Your task to perform on an android device: empty trash in google photos Image 0: 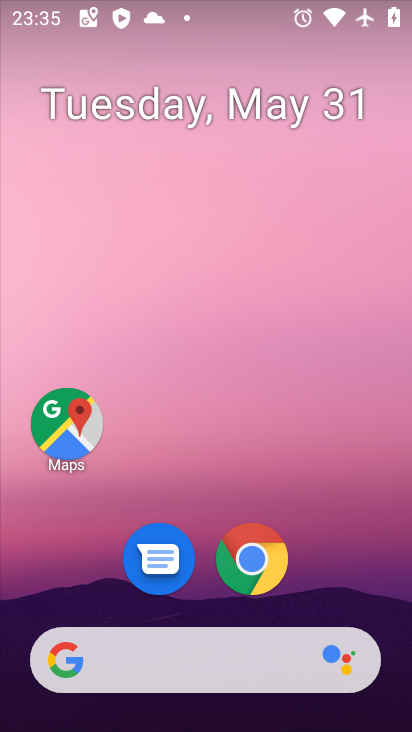
Step 0: drag from (329, 574) to (336, 71)
Your task to perform on an android device: empty trash in google photos Image 1: 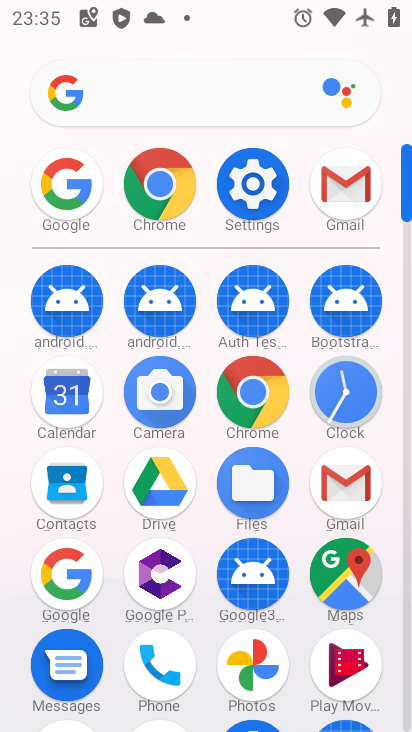
Step 1: click (247, 662)
Your task to perform on an android device: empty trash in google photos Image 2: 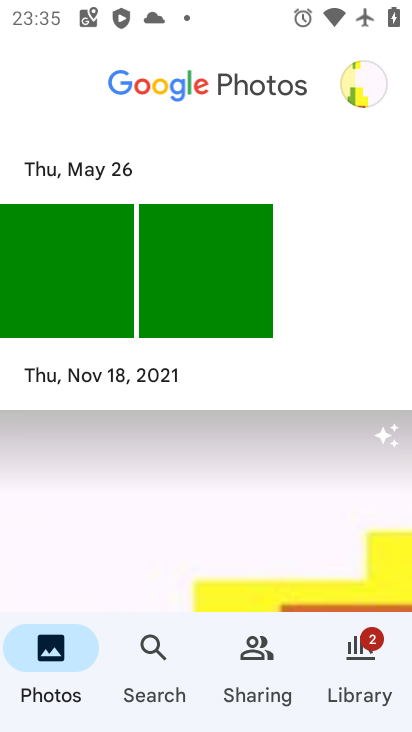
Step 2: click (350, 666)
Your task to perform on an android device: empty trash in google photos Image 3: 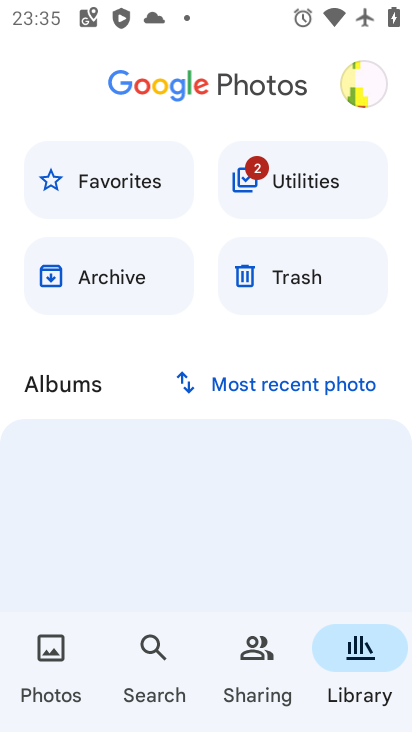
Step 3: click (284, 285)
Your task to perform on an android device: empty trash in google photos Image 4: 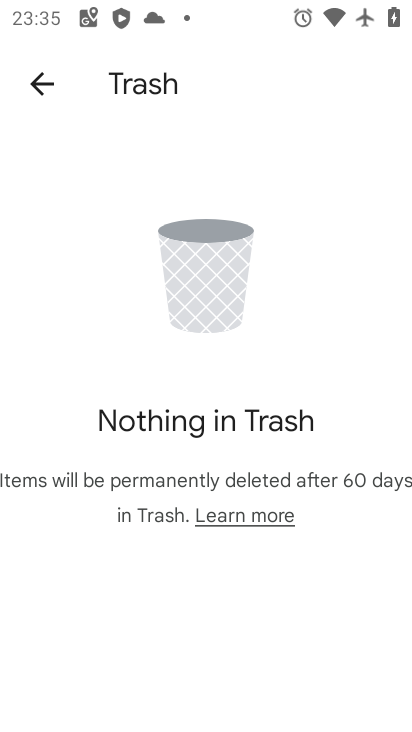
Step 4: task complete